Your task to perform on an android device: toggle pop-ups in chrome Image 0: 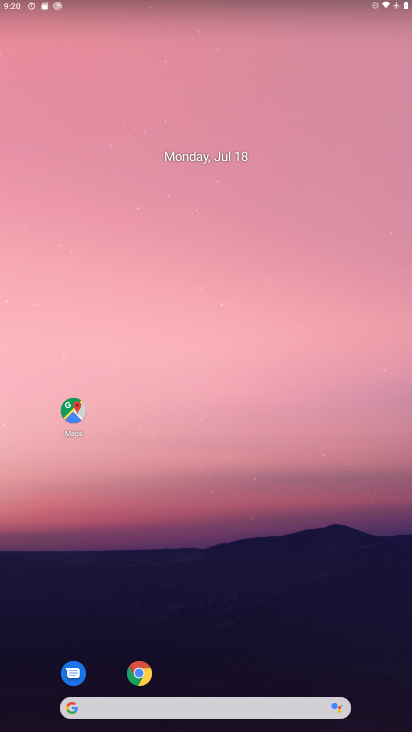
Step 0: press home button
Your task to perform on an android device: toggle pop-ups in chrome Image 1: 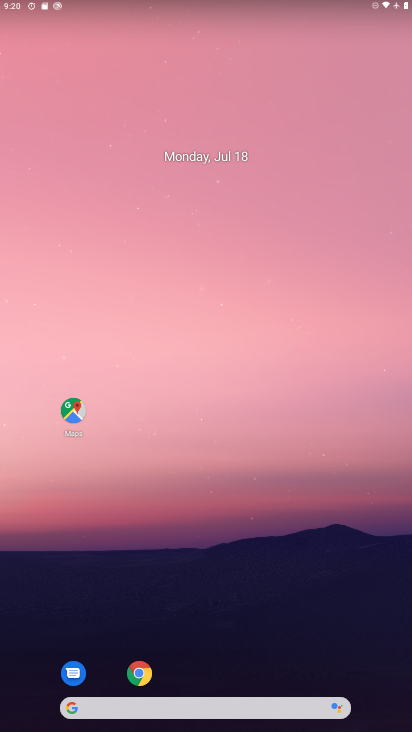
Step 1: drag from (252, 675) to (290, 178)
Your task to perform on an android device: toggle pop-ups in chrome Image 2: 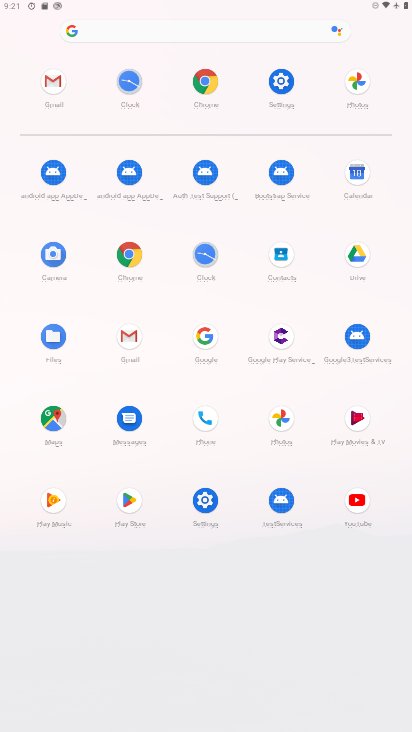
Step 2: click (208, 86)
Your task to perform on an android device: toggle pop-ups in chrome Image 3: 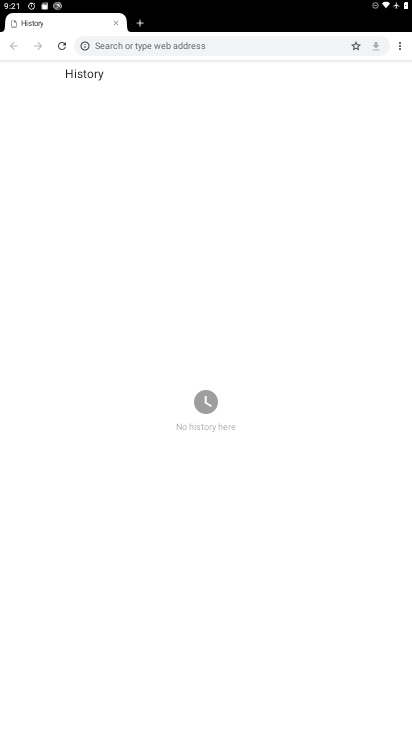
Step 3: drag from (405, 50) to (309, 217)
Your task to perform on an android device: toggle pop-ups in chrome Image 4: 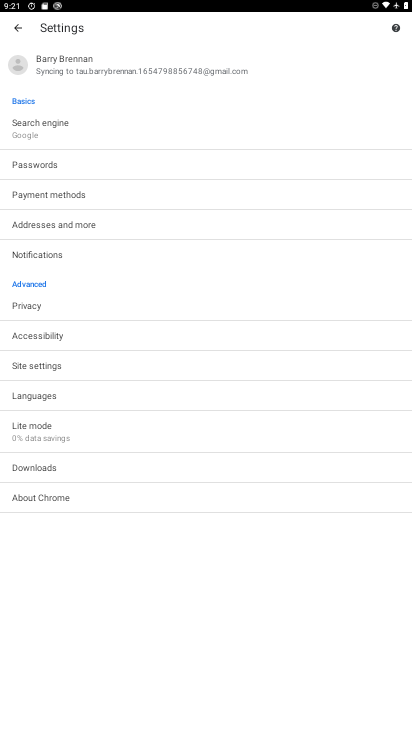
Step 4: click (30, 359)
Your task to perform on an android device: toggle pop-ups in chrome Image 5: 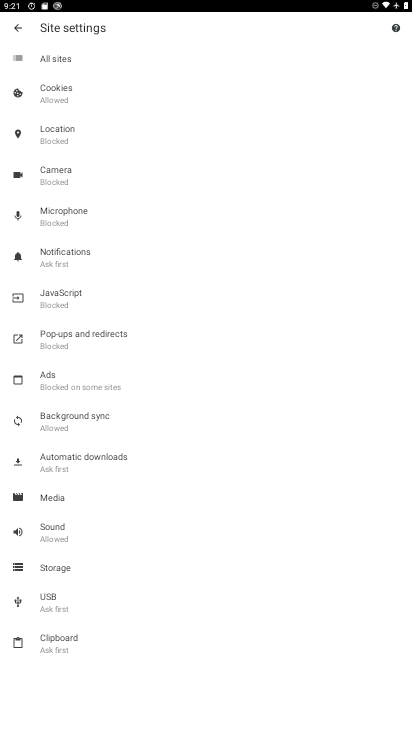
Step 5: click (56, 338)
Your task to perform on an android device: toggle pop-ups in chrome Image 6: 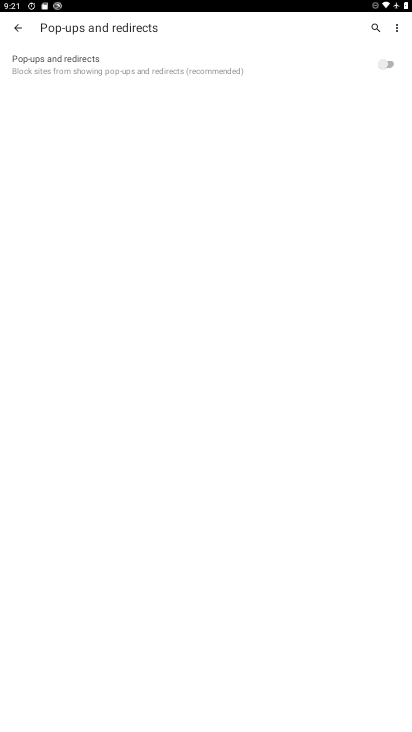
Step 6: click (384, 62)
Your task to perform on an android device: toggle pop-ups in chrome Image 7: 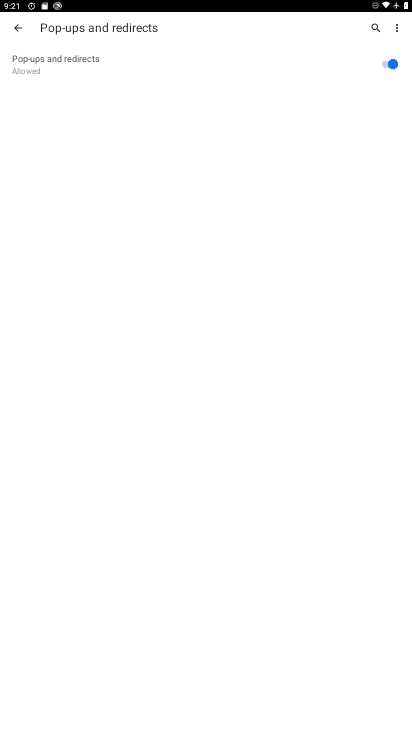
Step 7: task complete